Your task to perform on an android device: Check the weather Image 0: 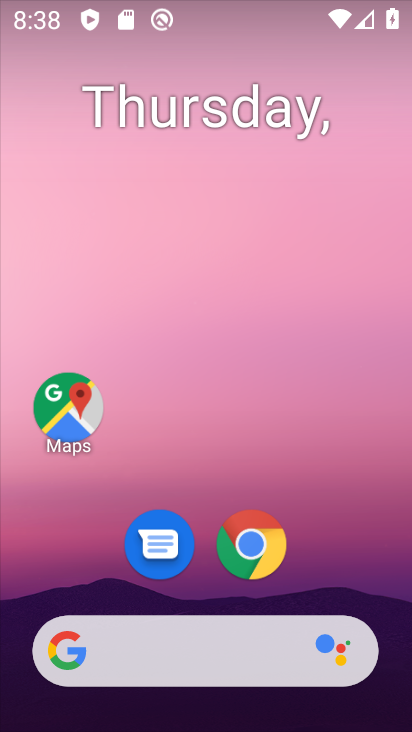
Step 0: click (37, 726)
Your task to perform on an android device: Check the weather Image 1: 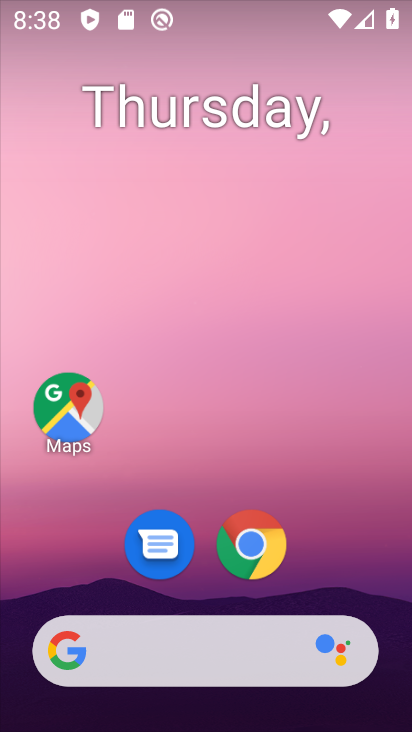
Step 1: click (140, 638)
Your task to perform on an android device: Check the weather Image 2: 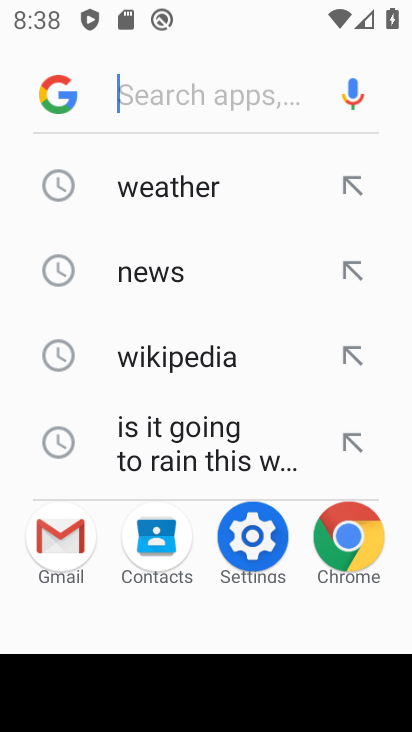
Step 2: type " Check the weather"
Your task to perform on an android device: Check the weather Image 3: 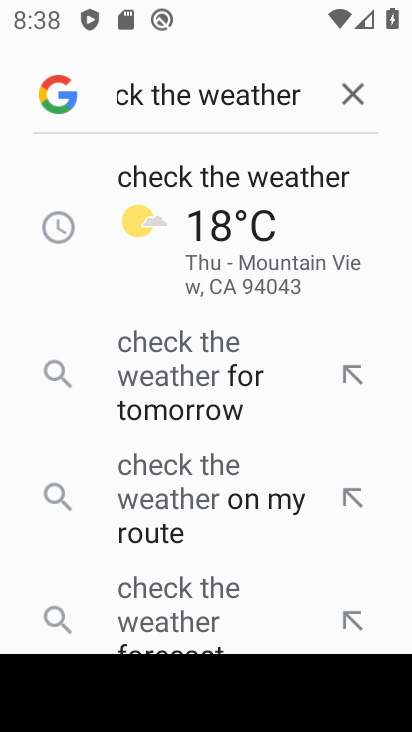
Step 3: click (203, 222)
Your task to perform on an android device: Check the weather Image 4: 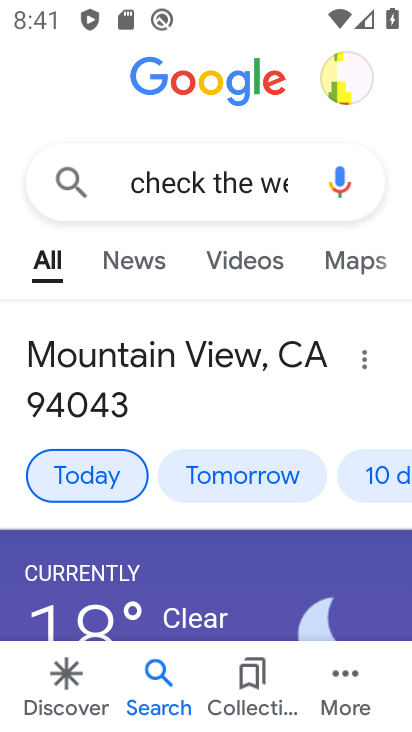
Step 4: task complete